Your task to perform on an android device: Open settings Image 0: 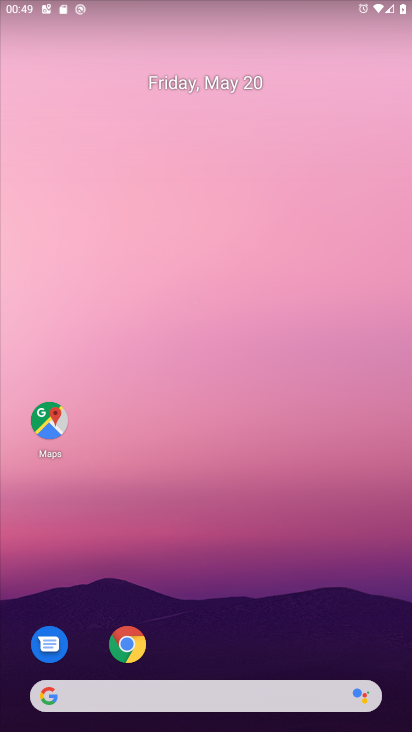
Step 0: drag from (224, 680) to (222, 419)
Your task to perform on an android device: Open settings Image 1: 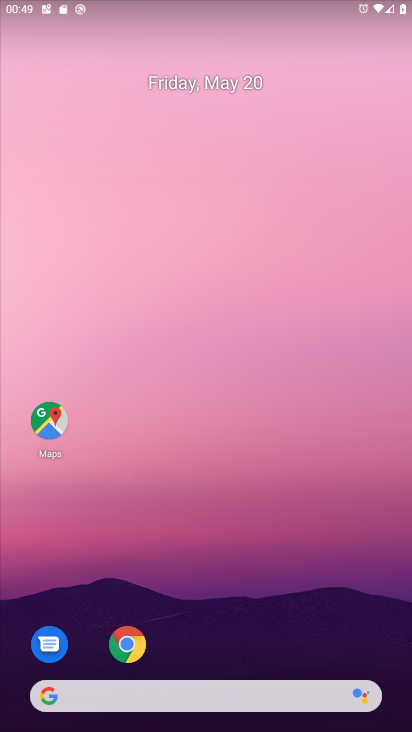
Step 1: drag from (205, 661) to (195, 338)
Your task to perform on an android device: Open settings Image 2: 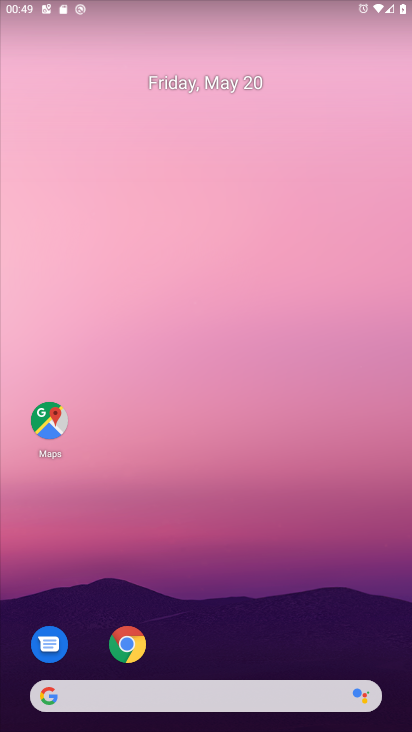
Step 2: drag from (232, 674) to (231, 369)
Your task to perform on an android device: Open settings Image 3: 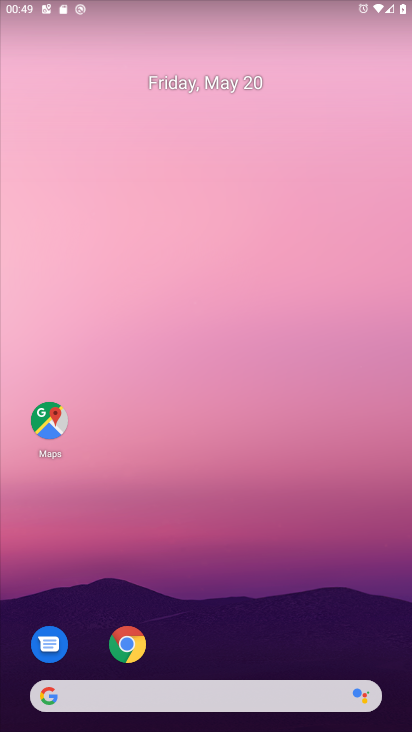
Step 3: drag from (260, 673) to (274, 445)
Your task to perform on an android device: Open settings Image 4: 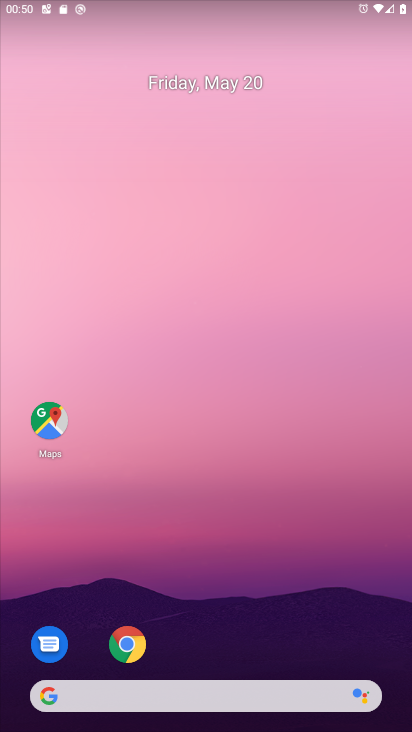
Step 4: drag from (206, 673) to (206, 362)
Your task to perform on an android device: Open settings Image 5: 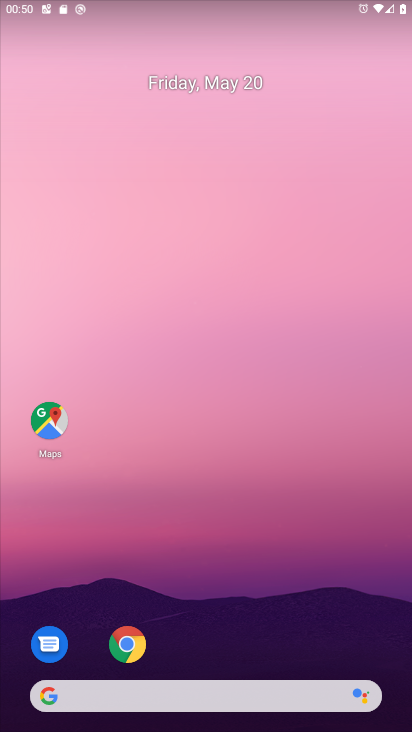
Step 5: drag from (206, 610) to (211, 362)
Your task to perform on an android device: Open settings Image 6: 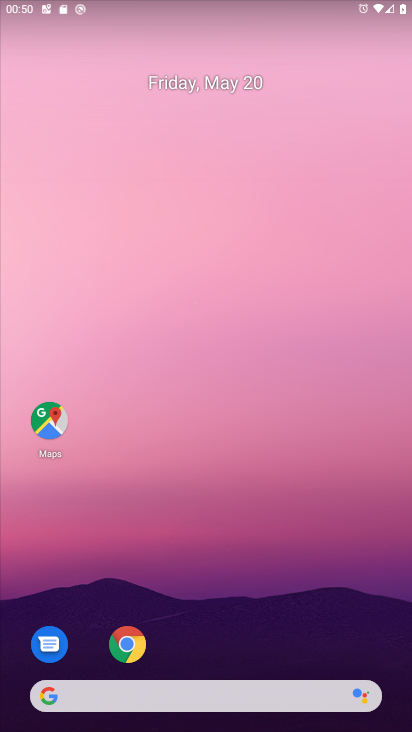
Step 6: drag from (173, 675) to (244, 310)
Your task to perform on an android device: Open settings Image 7: 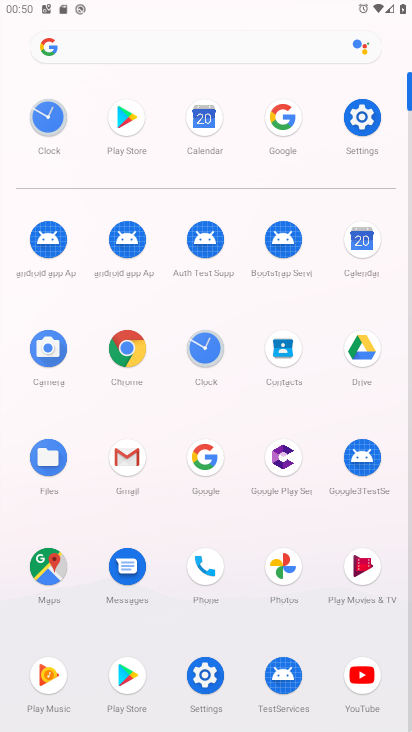
Step 7: click (371, 127)
Your task to perform on an android device: Open settings Image 8: 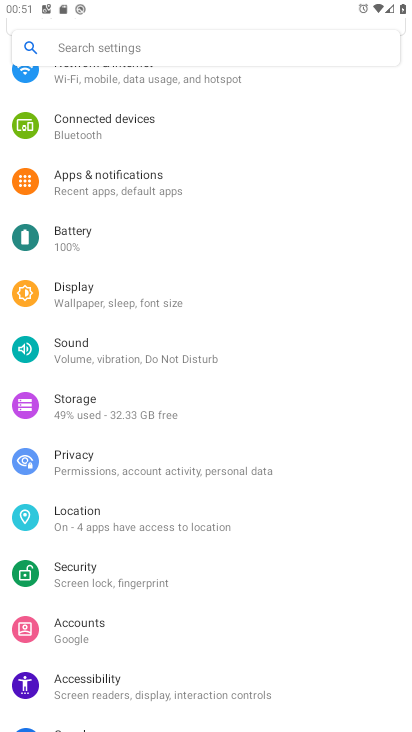
Step 8: task complete